Your task to perform on an android device: check google app version Image 0: 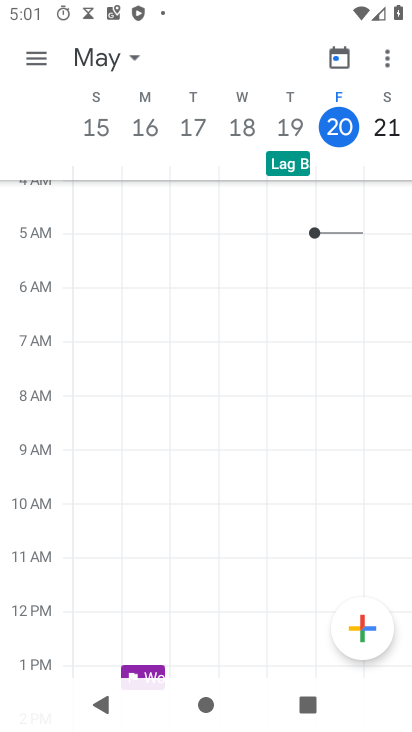
Step 0: press back button
Your task to perform on an android device: check google app version Image 1: 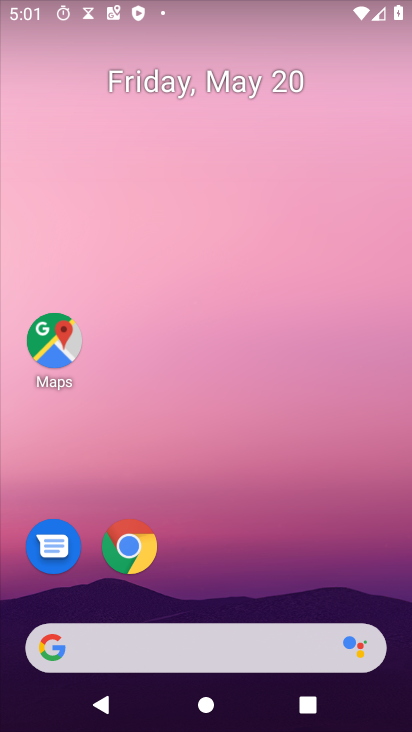
Step 1: drag from (259, 567) to (213, 8)
Your task to perform on an android device: check google app version Image 2: 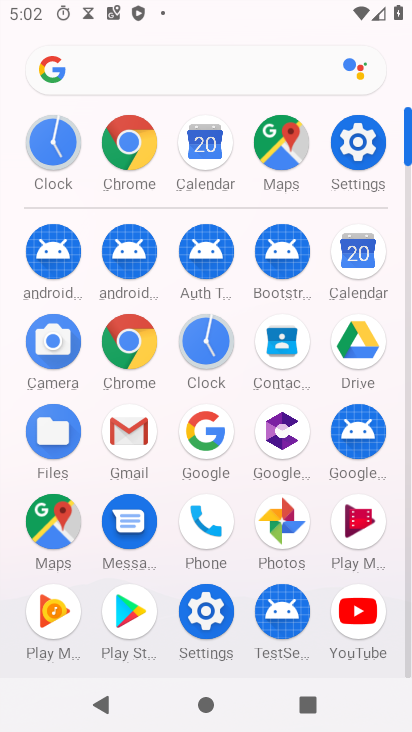
Step 2: click (202, 427)
Your task to perform on an android device: check google app version Image 3: 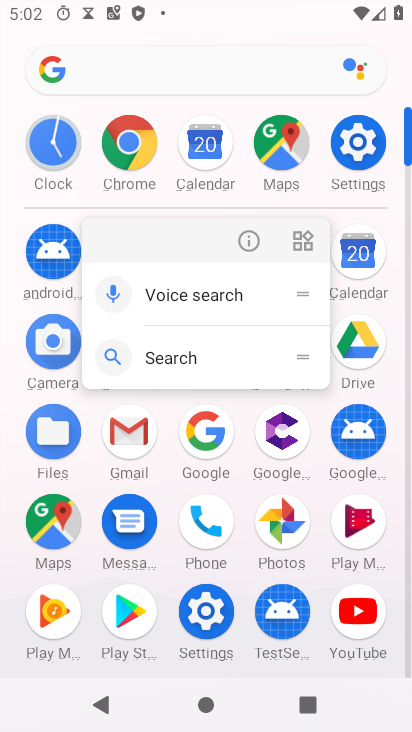
Step 3: click (254, 246)
Your task to perform on an android device: check google app version Image 4: 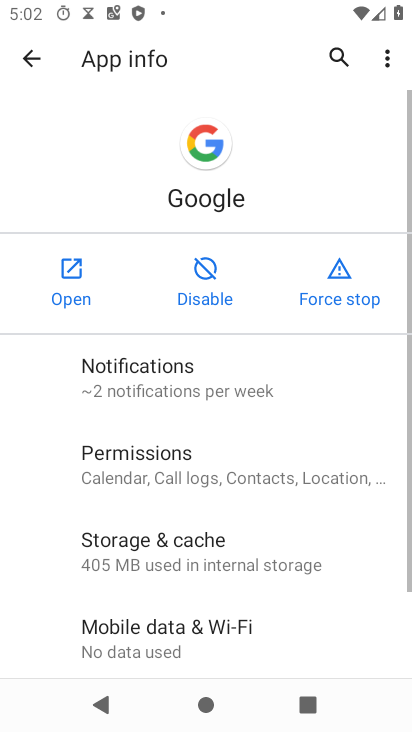
Step 4: drag from (192, 575) to (246, 421)
Your task to perform on an android device: check google app version Image 5: 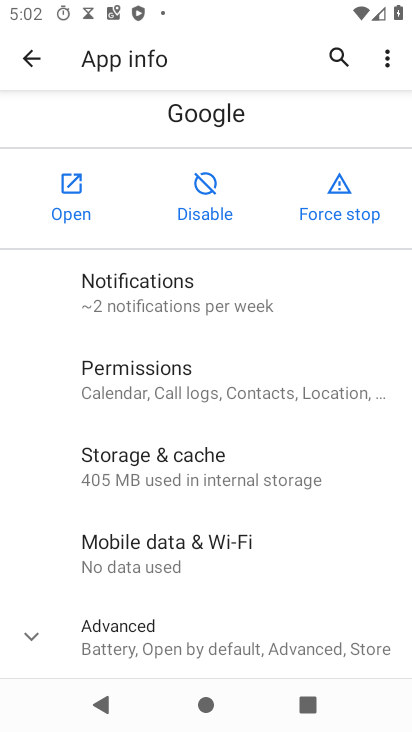
Step 5: click (140, 640)
Your task to perform on an android device: check google app version Image 6: 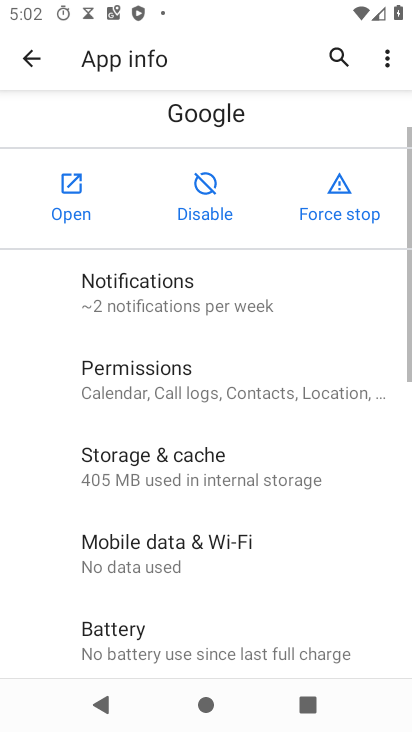
Step 6: task complete